Your task to perform on an android device: Go to Maps Image 0: 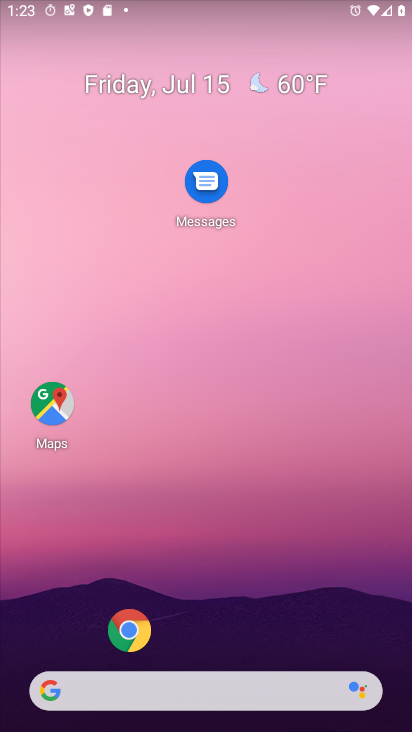
Step 0: click (48, 393)
Your task to perform on an android device: Go to Maps Image 1: 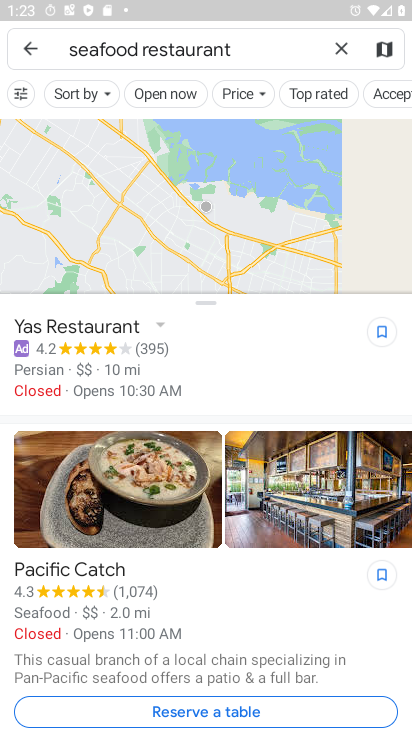
Step 1: click (336, 48)
Your task to perform on an android device: Go to Maps Image 2: 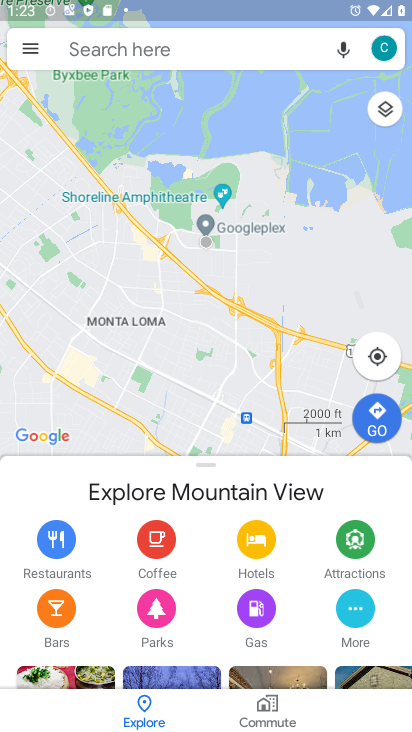
Step 2: click (69, 47)
Your task to perform on an android device: Go to Maps Image 3: 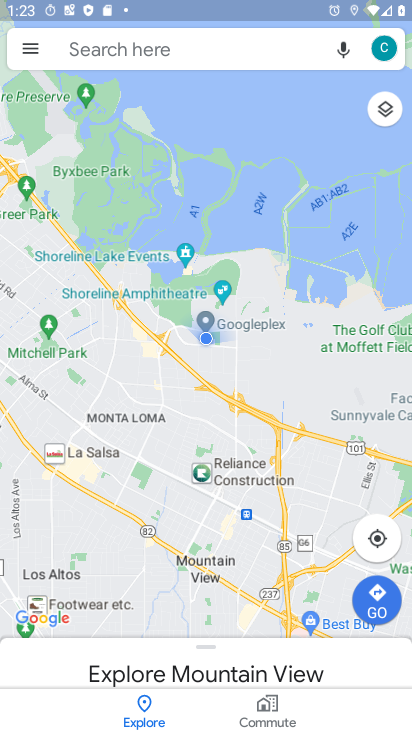
Step 3: task complete